Your task to perform on an android device: change the clock display to digital Image 0: 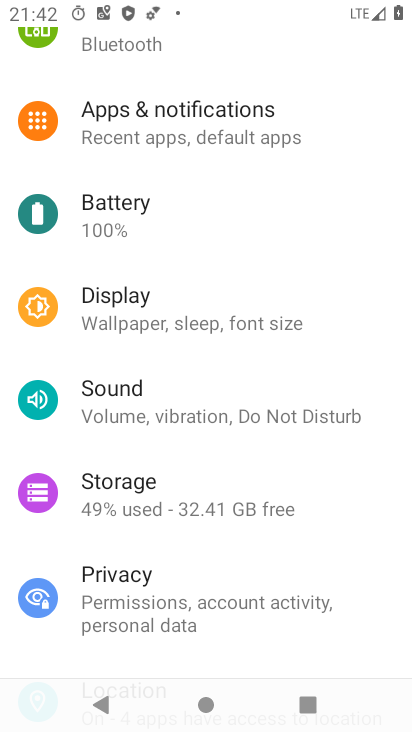
Step 0: press home button
Your task to perform on an android device: change the clock display to digital Image 1: 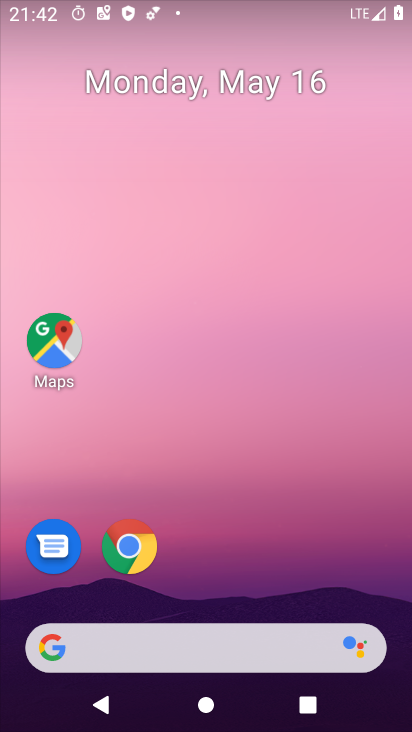
Step 1: drag from (272, 671) to (200, 201)
Your task to perform on an android device: change the clock display to digital Image 2: 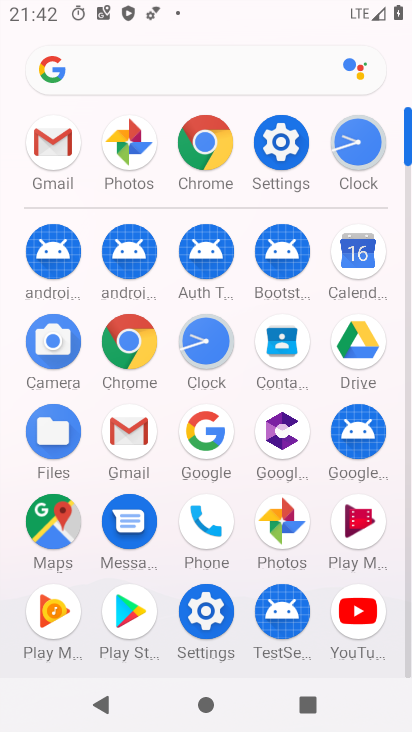
Step 2: click (349, 148)
Your task to perform on an android device: change the clock display to digital Image 3: 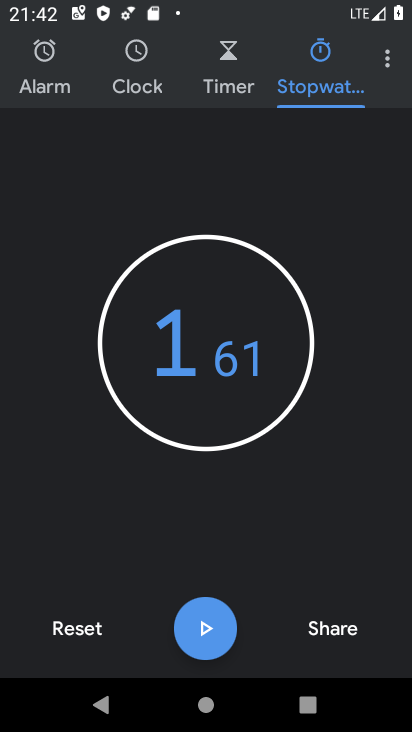
Step 3: click (388, 59)
Your task to perform on an android device: change the clock display to digital Image 4: 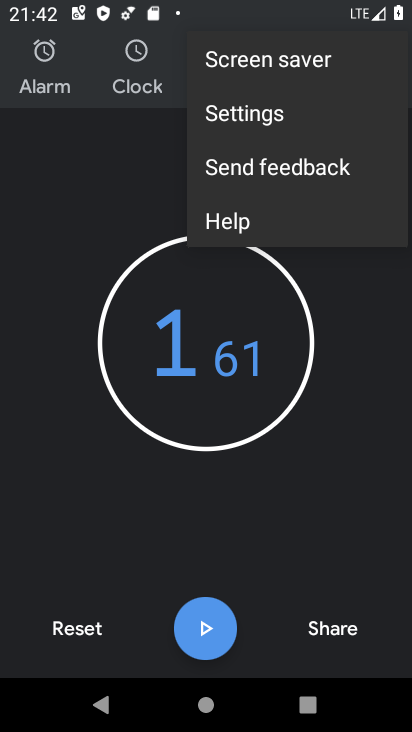
Step 4: click (261, 116)
Your task to perform on an android device: change the clock display to digital Image 5: 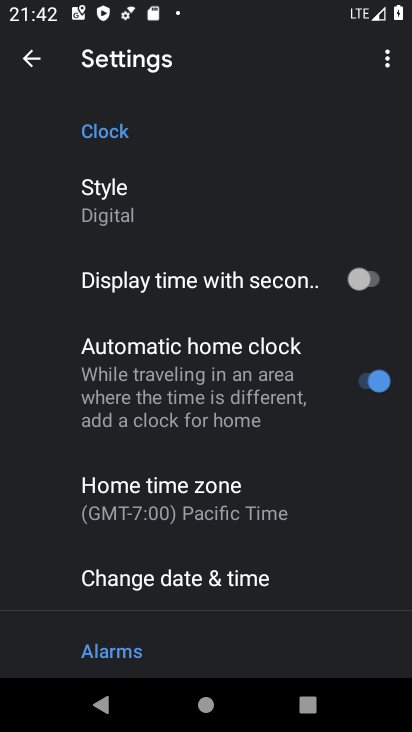
Step 5: click (145, 188)
Your task to perform on an android device: change the clock display to digital Image 6: 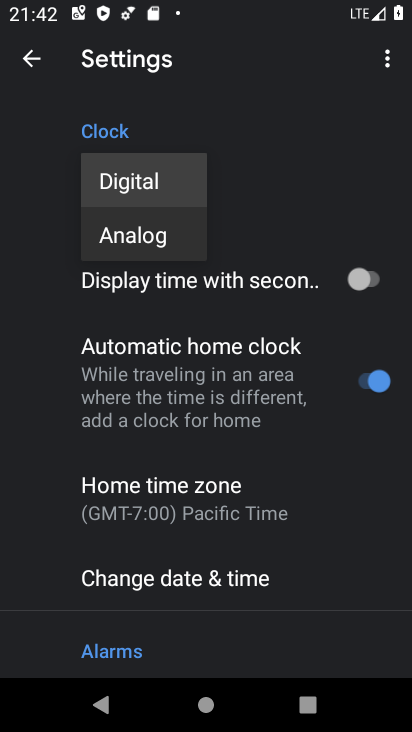
Step 6: click (129, 188)
Your task to perform on an android device: change the clock display to digital Image 7: 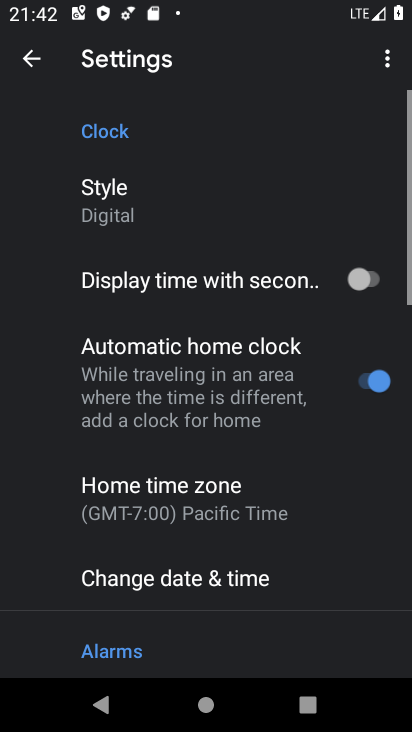
Step 7: task complete